Your task to perform on an android device: Open Google Chrome Image 0: 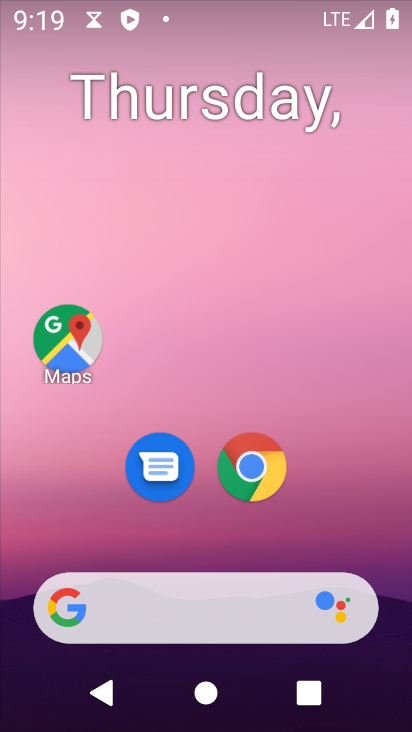
Step 0: click (243, 474)
Your task to perform on an android device: Open Google Chrome Image 1: 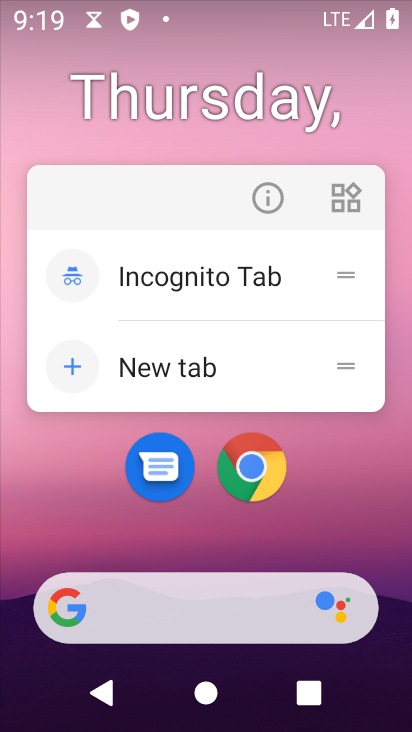
Step 1: click (244, 474)
Your task to perform on an android device: Open Google Chrome Image 2: 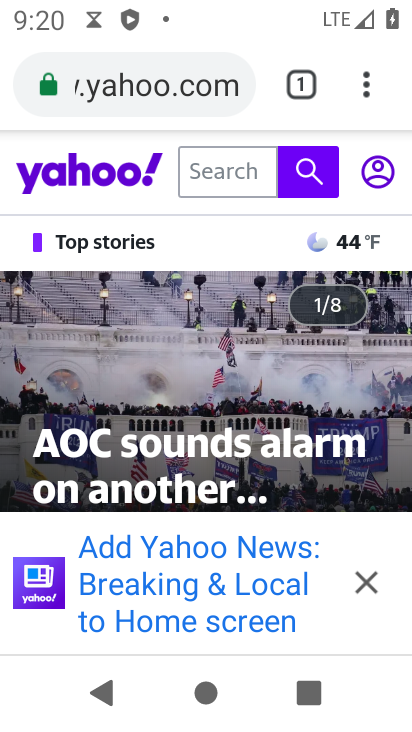
Step 2: task complete